Your task to perform on an android device: Open location settings Image 0: 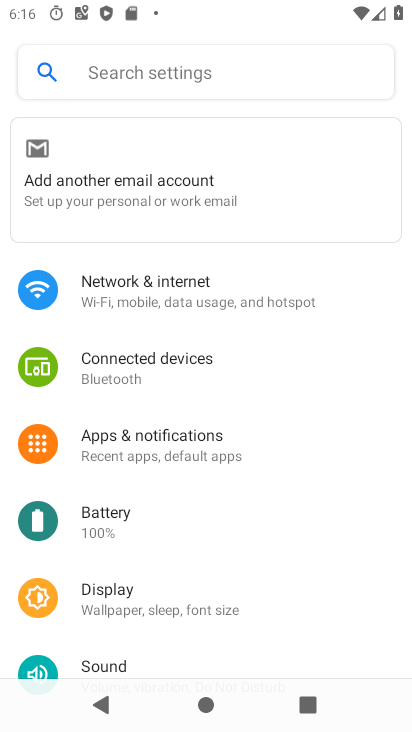
Step 0: drag from (163, 579) to (162, 100)
Your task to perform on an android device: Open location settings Image 1: 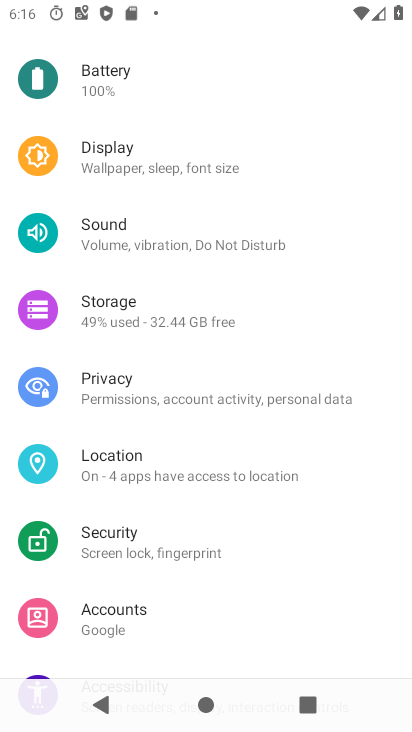
Step 1: click (125, 480)
Your task to perform on an android device: Open location settings Image 2: 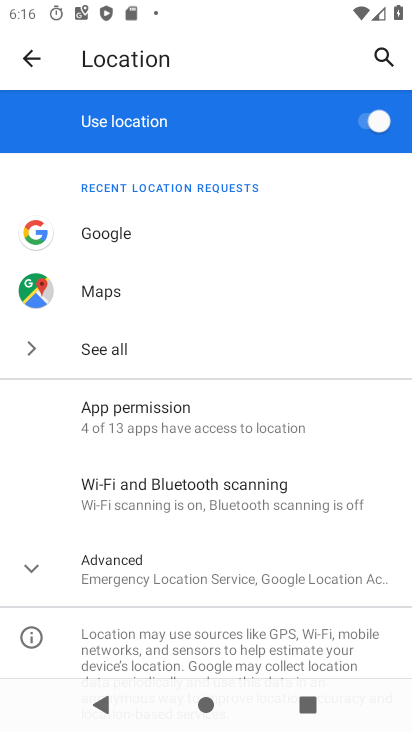
Step 2: task complete